Your task to perform on an android device: Open settings on Google Maps Image 0: 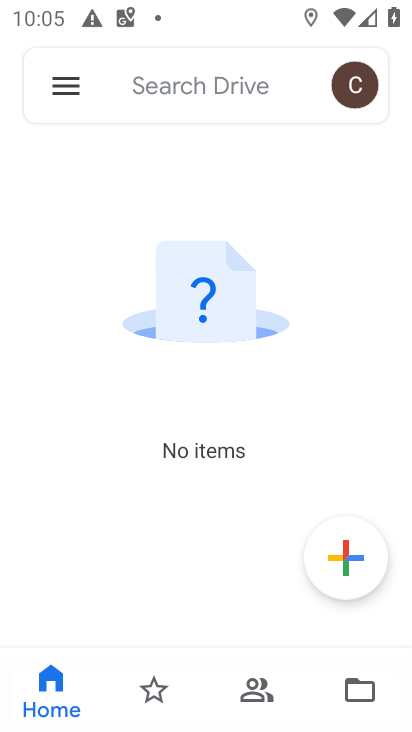
Step 0: press home button
Your task to perform on an android device: Open settings on Google Maps Image 1: 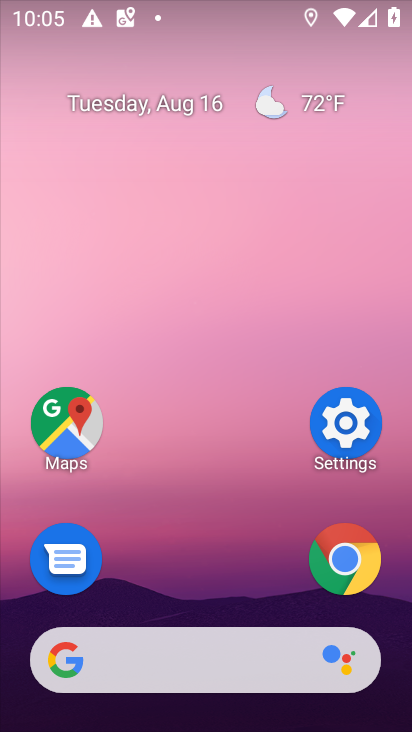
Step 1: click (64, 423)
Your task to perform on an android device: Open settings on Google Maps Image 2: 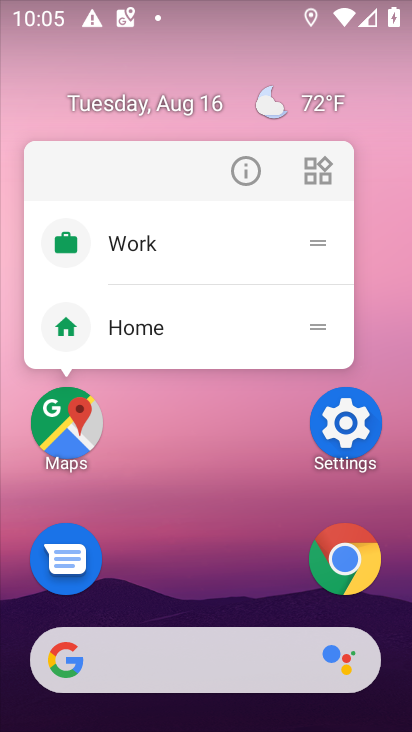
Step 2: click (74, 422)
Your task to perform on an android device: Open settings on Google Maps Image 3: 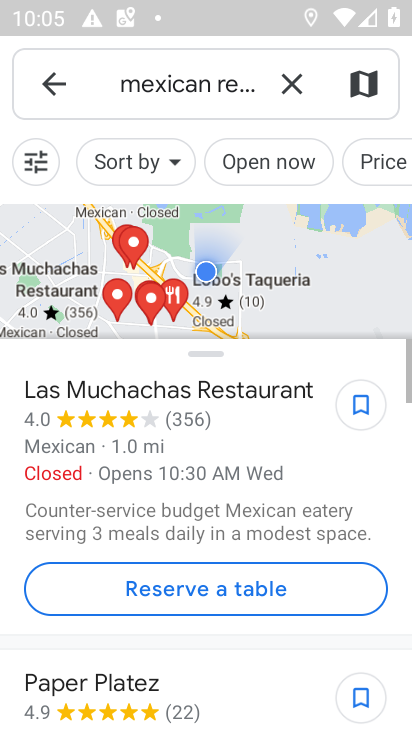
Step 3: press back button
Your task to perform on an android device: Open settings on Google Maps Image 4: 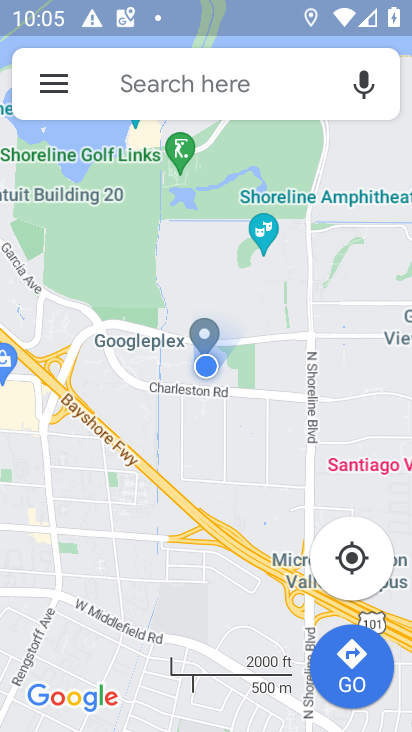
Step 4: click (60, 83)
Your task to perform on an android device: Open settings on Google Maps Image 5: 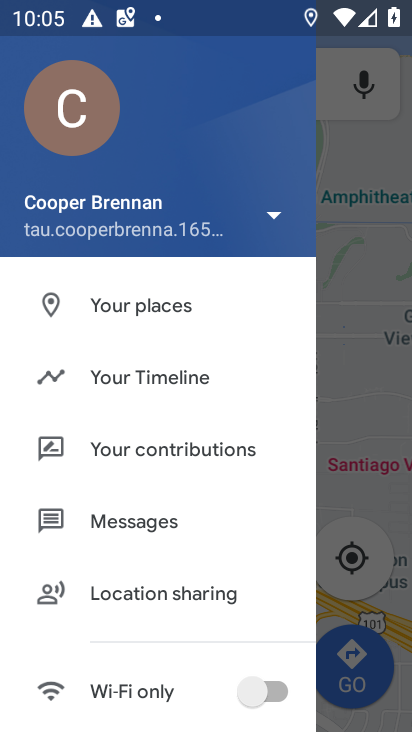
Step 5: drag from (181, 648) to (186, 94)
Your task to perform on an android device: Open settings on Google Maps Image 6: 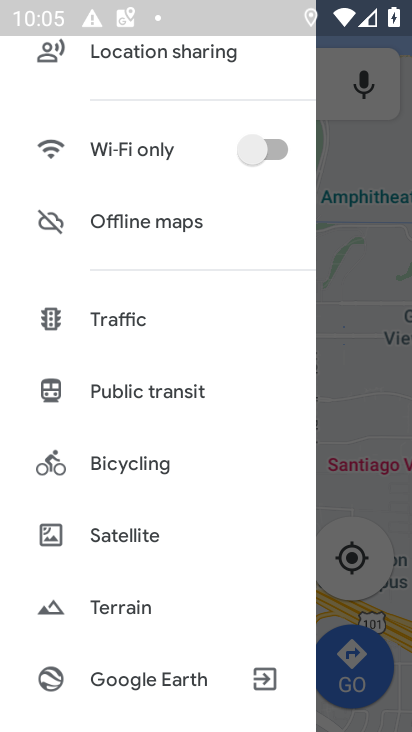
Step 6: drag from (193, 628) to (195, 194)
Your task to perform on an android device: Open settings on Google Maps Image 7: 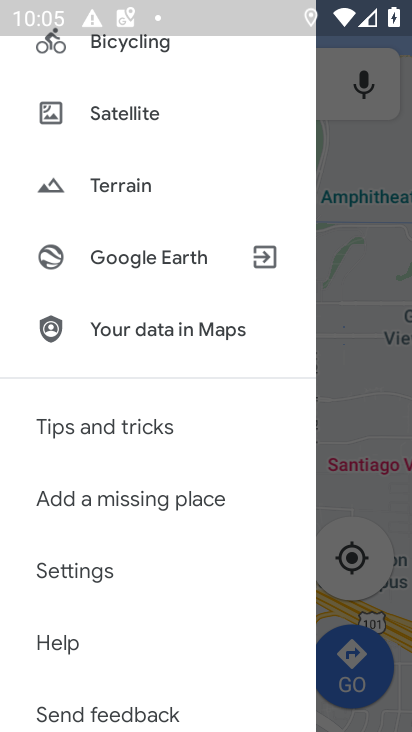
Step 7: click (90, 571)
Your task to perform on an android device: Open settings on Google Maps Image 8: 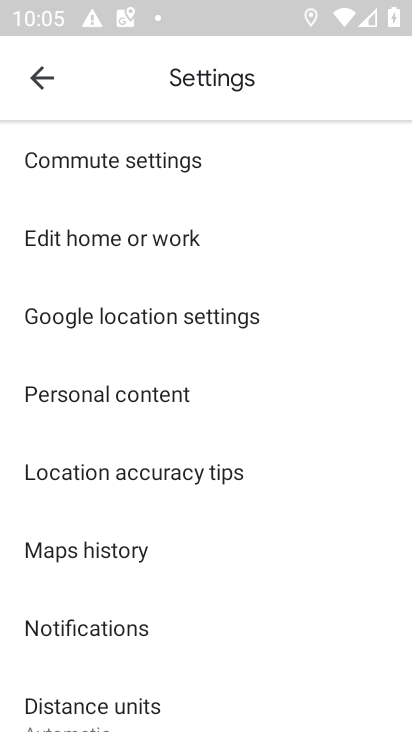
Step 8: task complete